Your task to perform on an android device: check the backup settings in the google photos Image 0: 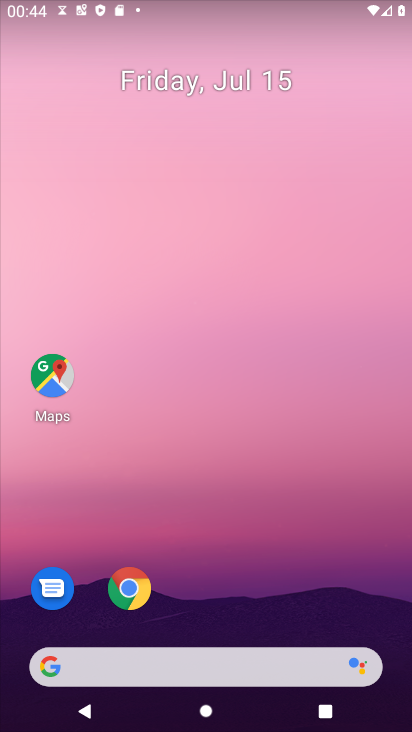
Step 0: drag from (223, 664) to (300, 123)
Your task to perform on an android device: check the backup settings in the google photos Image 1: 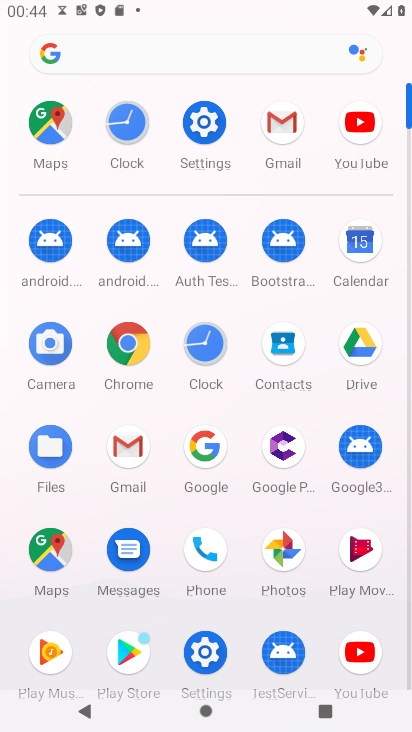
Step 1: click (287, 562)
Your task to perform on an android device: check the backup settings in the google photos Image 2: 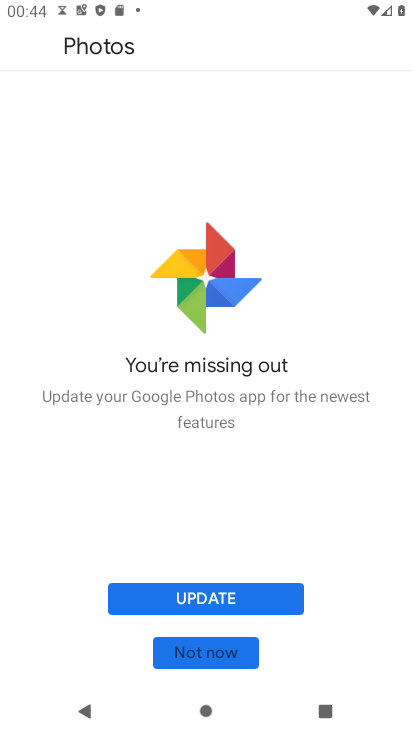
Step 2: click (200, 645)
Your task to perform on an android device: check the backup settings in the google photos Image 3: 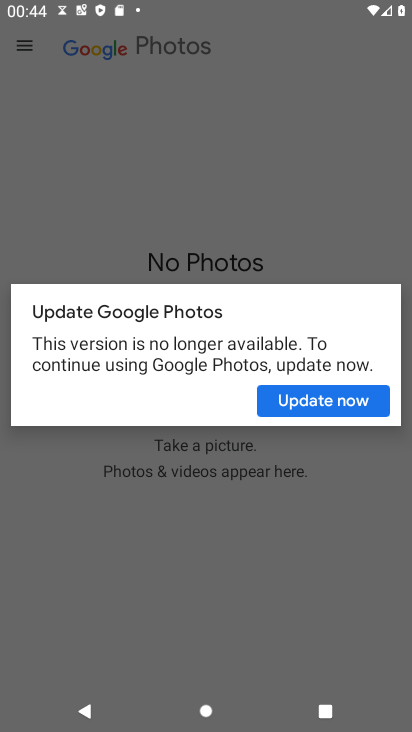
Step 3: click (305, 396)
Your task to perform on an android device: check the backup settings in the google photos Image 4: 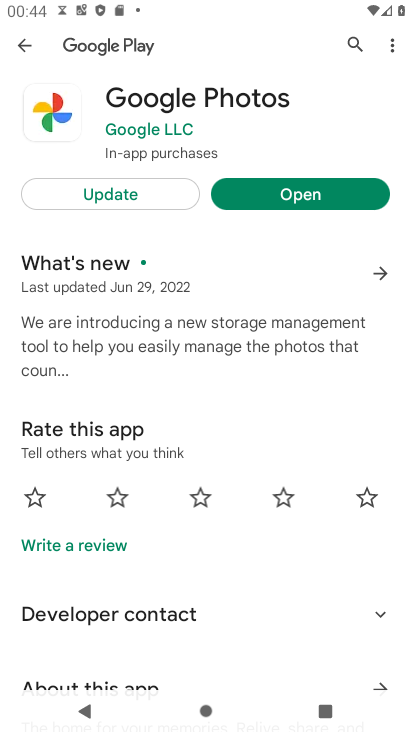
Step 4: press back button
Your task to perform on an android device: check the backup settings in the google photos Image 5: 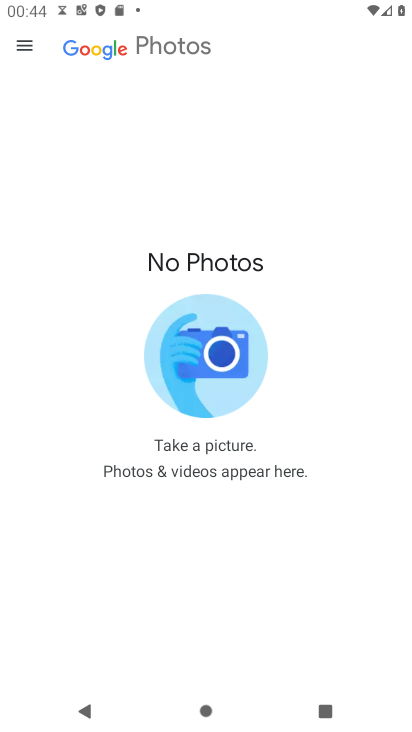
Step 5: click (39, 54)
Your task to perform on an android device: check the backup settings in the google photos Image 6: 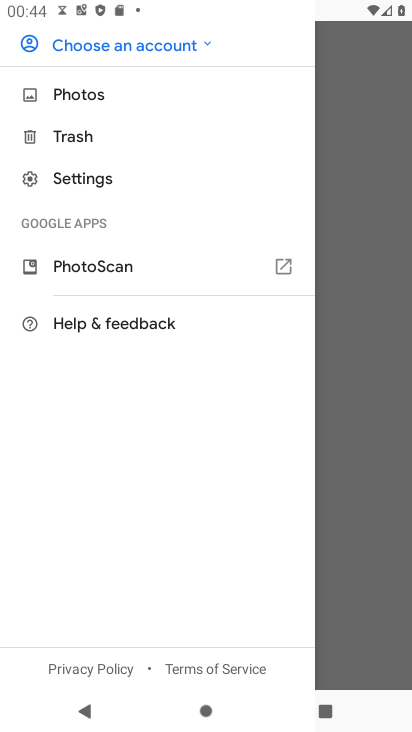
Step 6: click (79, 176)
Your task to perform on an android device: check the backup settings in the google photos Image 7: 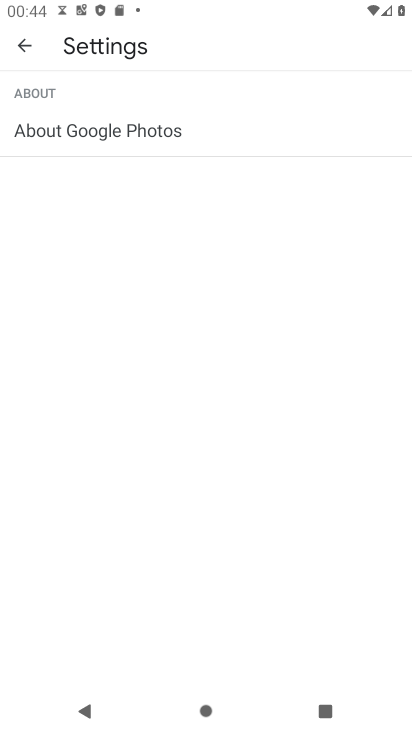
Step 7: task complete